Your task to perform on an android device: Go to eBay Image 0: 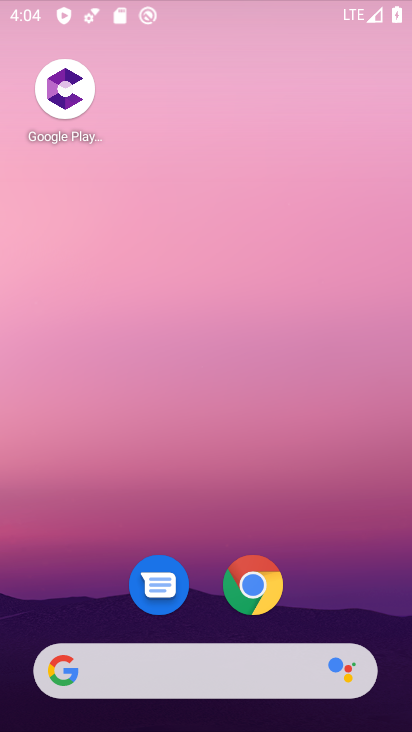
Step 0: drag from (233, 529) to (306, 52)
Your task to perform on an android device: Go to eBay Image 1: 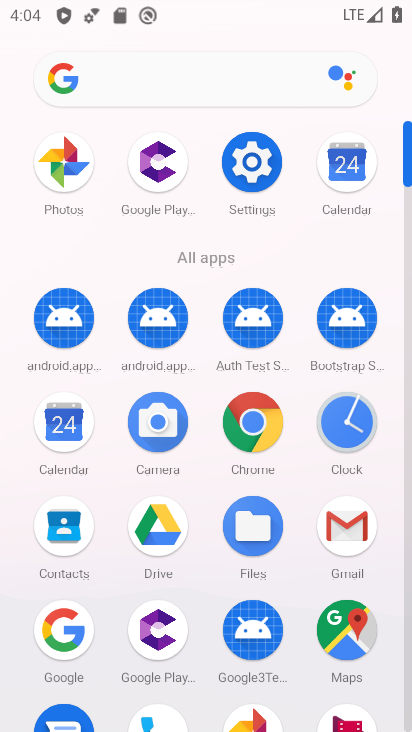
Step 1: click (165, 85)
Your task to perform on an android device: Go to eBay Image 2: 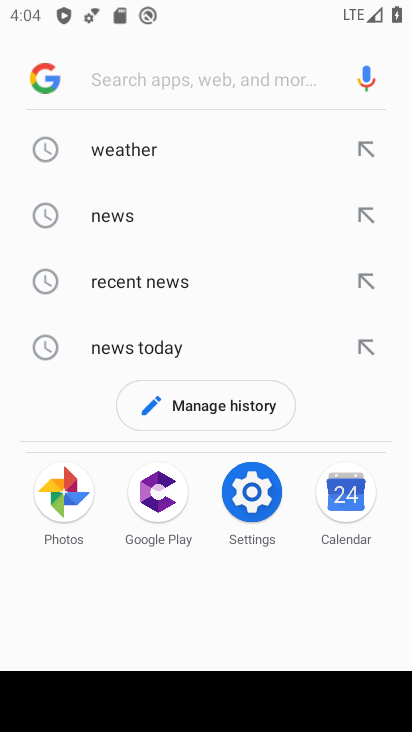
Step 2: type "ebay"
Your task to perform on an android device: Go to eBay Image 3: 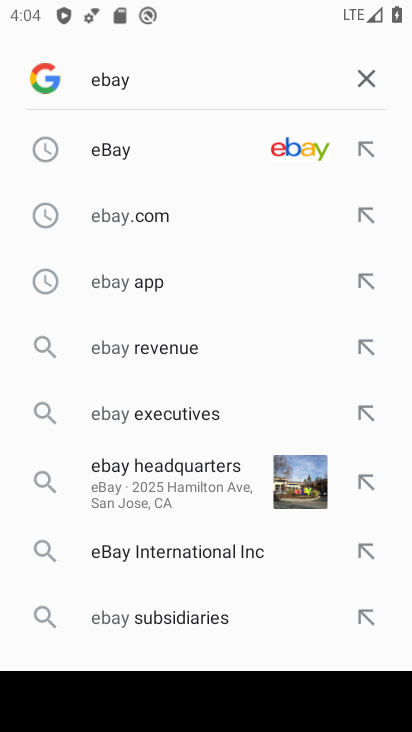
Step 3: click (106, 146)
Your task to perform on an android device: Go to eBay Image 4: 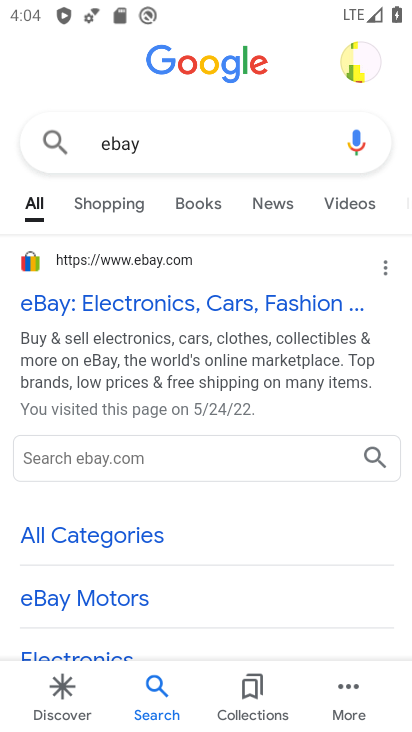
Step 4: click (61, 302)
Your task to perform on an android device: Go to eBay Image 5: 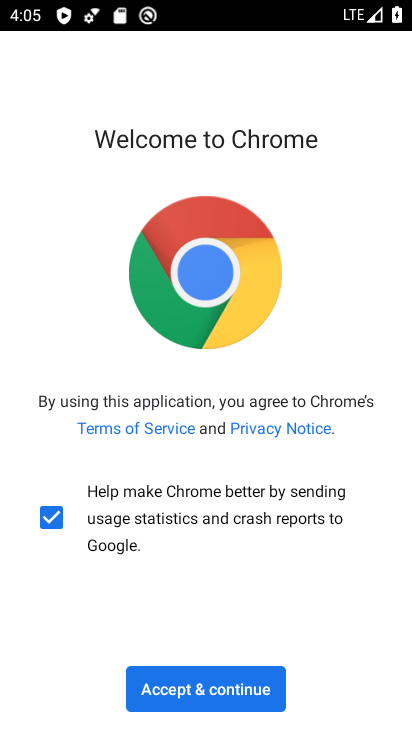
Step 5: click (240, 682)
Your task to perform on an android device: Go to eBay Image 6: 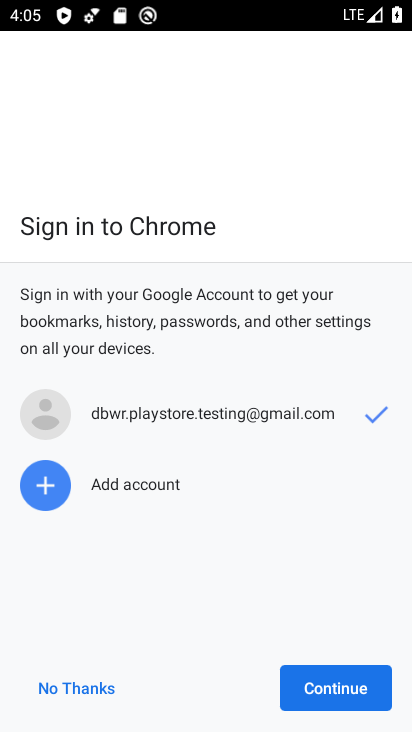
Step 6: click (331, 686)
Your task to perform on an android device: Go to eBay Image 7: 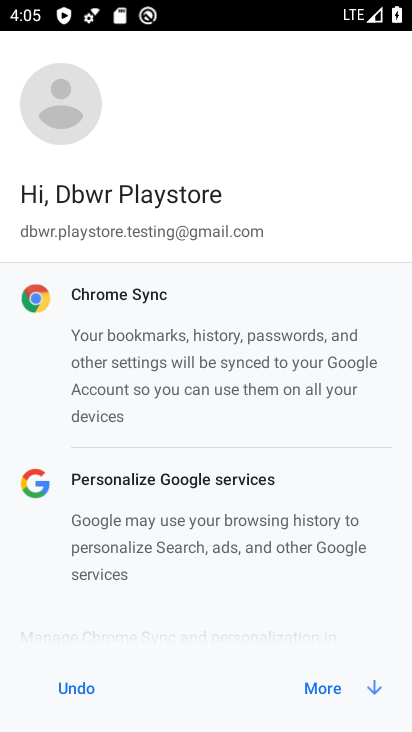
Step 7: click (331, 684)
Your task to perform on an android device: Go to eBay Image 8: 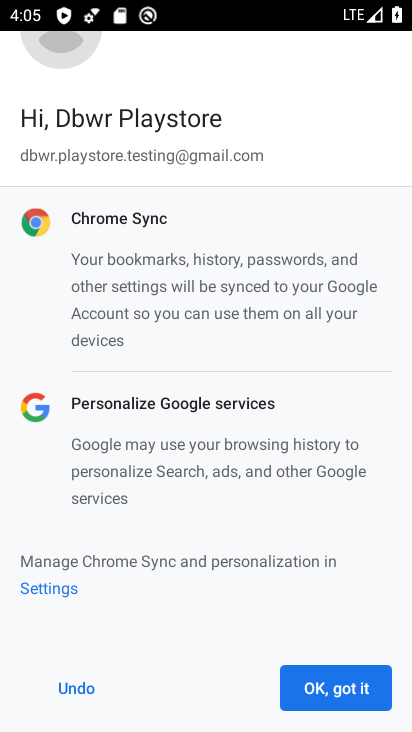
Step 8: click (331, 684)
Your task to perform on an android device: Go to eBay Image 9: 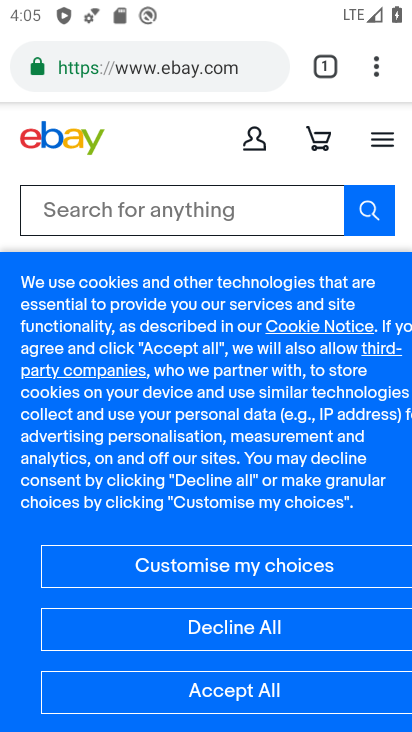
Step 9: task complete